Your task to perform on an android device: Clear the cart on target. Search for usb-b on target, select the first entry, add it to the cart, then select checkout. Image 0: 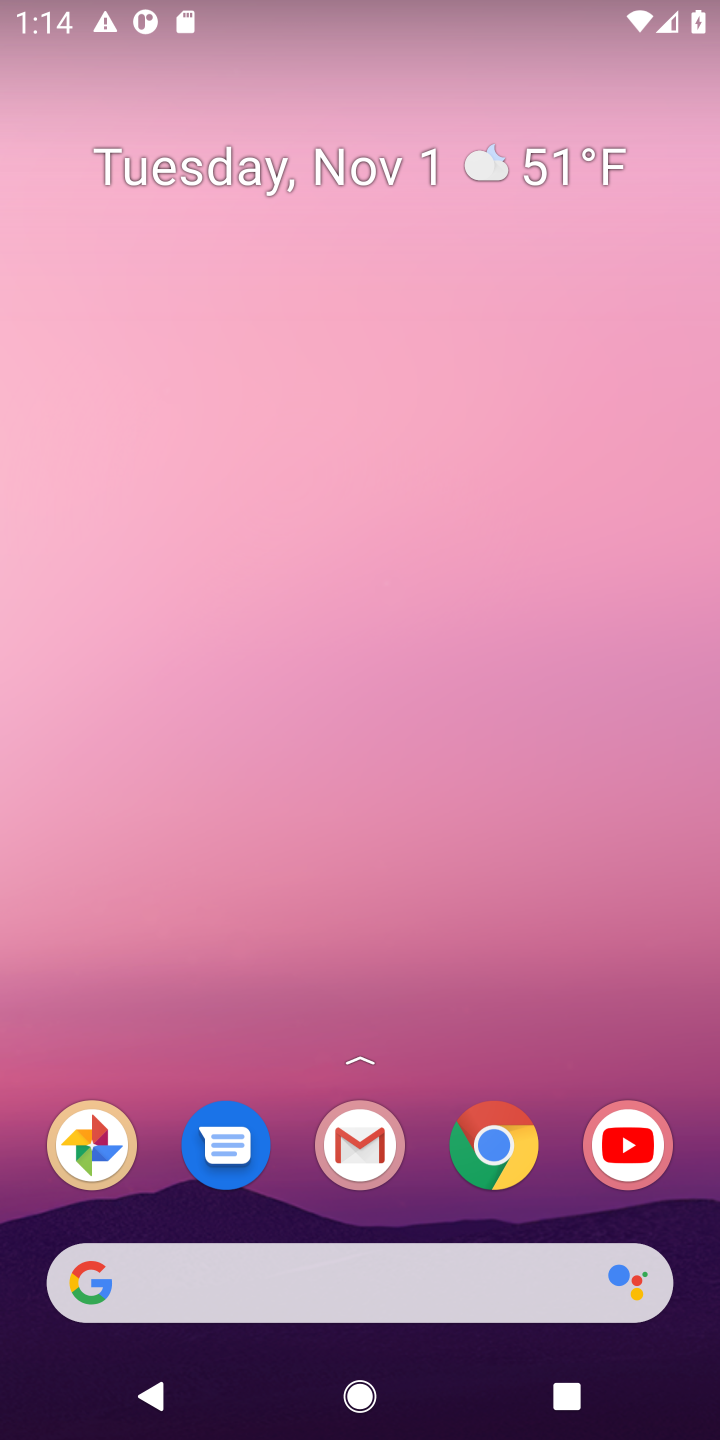
Step 0: press home button
Your task to perform on an android device: Clear the cart on target. Search for usb-b on target, select the first entry, add it to the cart, then select checkout. Image 1: 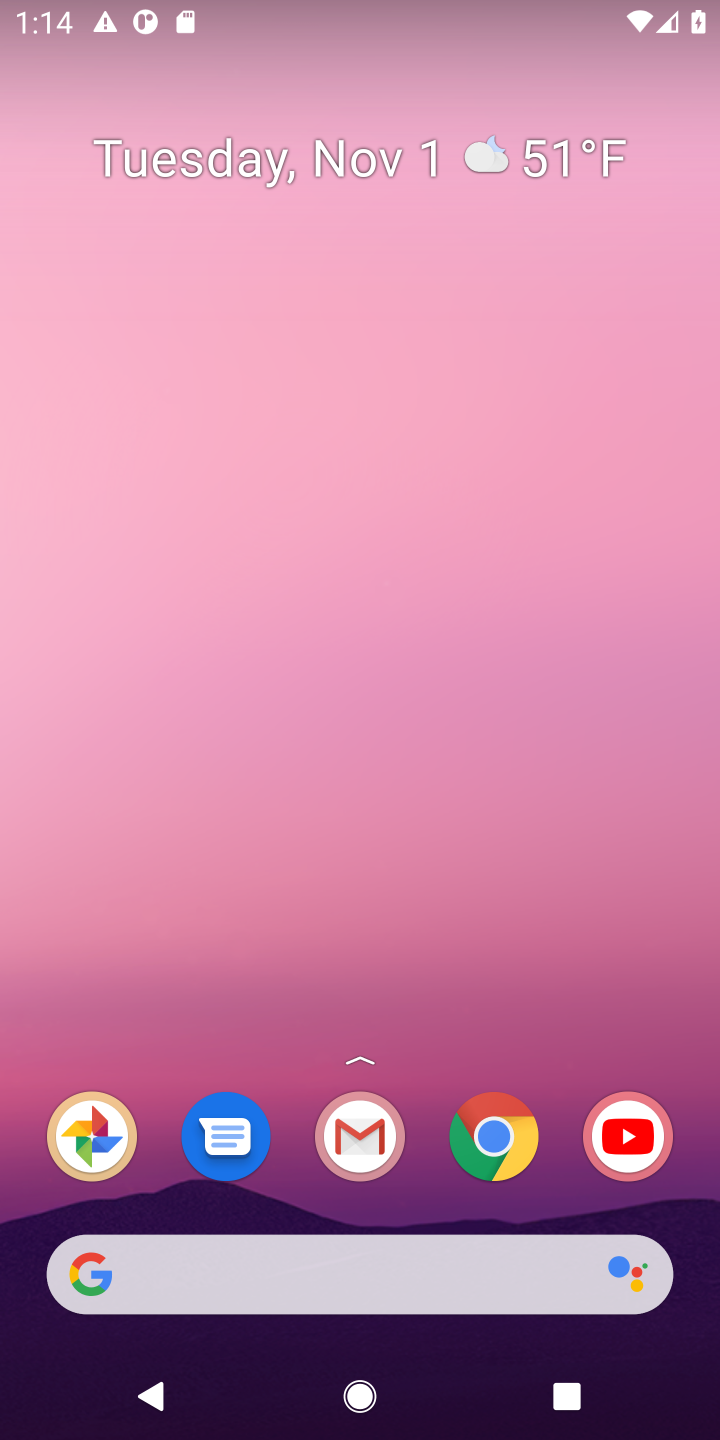
Step 1: click (131, 1276)
Your task to perform on an android device: Clear the cart on target. Search for usb-b on target, select the first entry, add it to the cart, then select checkout. Image 2: 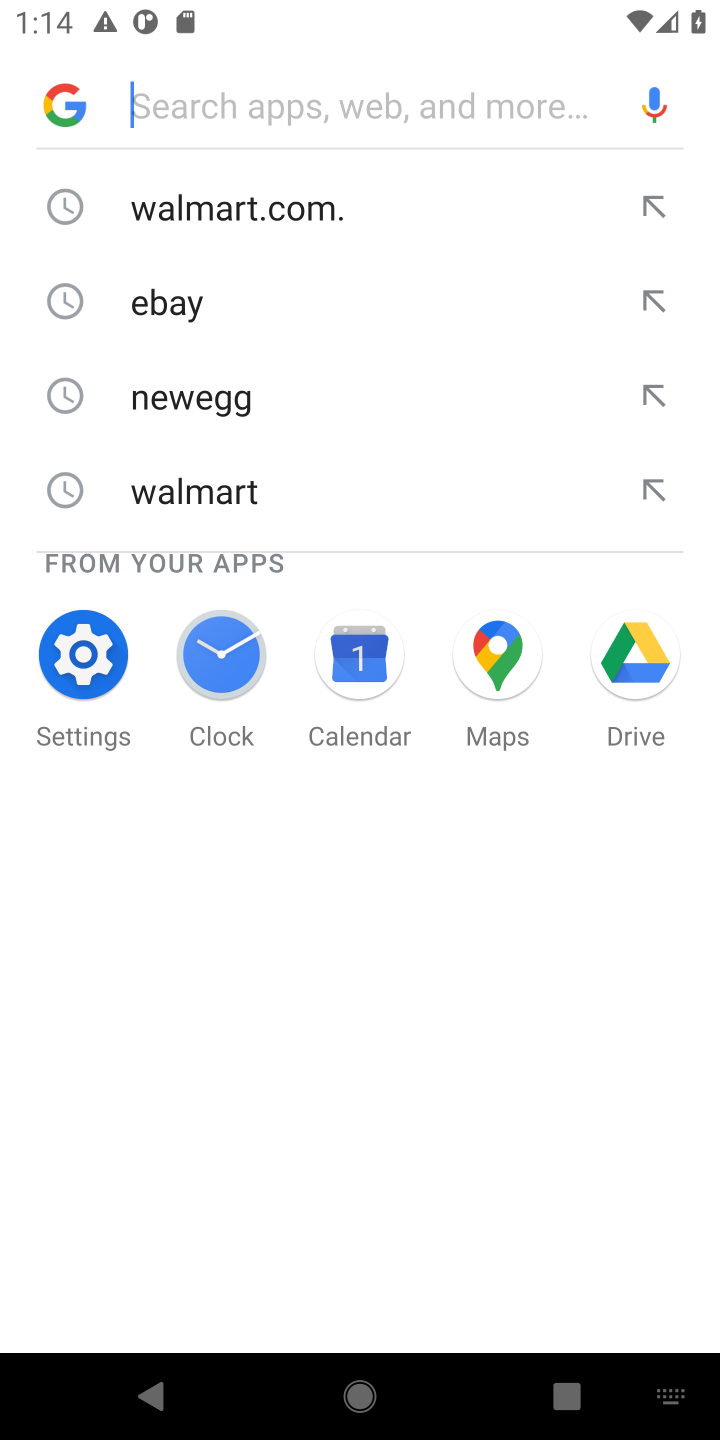
Step 2: type " target"
Your task to perform on an android device: Clear the cart on target. Search for usb-b on target, select the first entry, add it to the cart, then select checkout. Image 3: 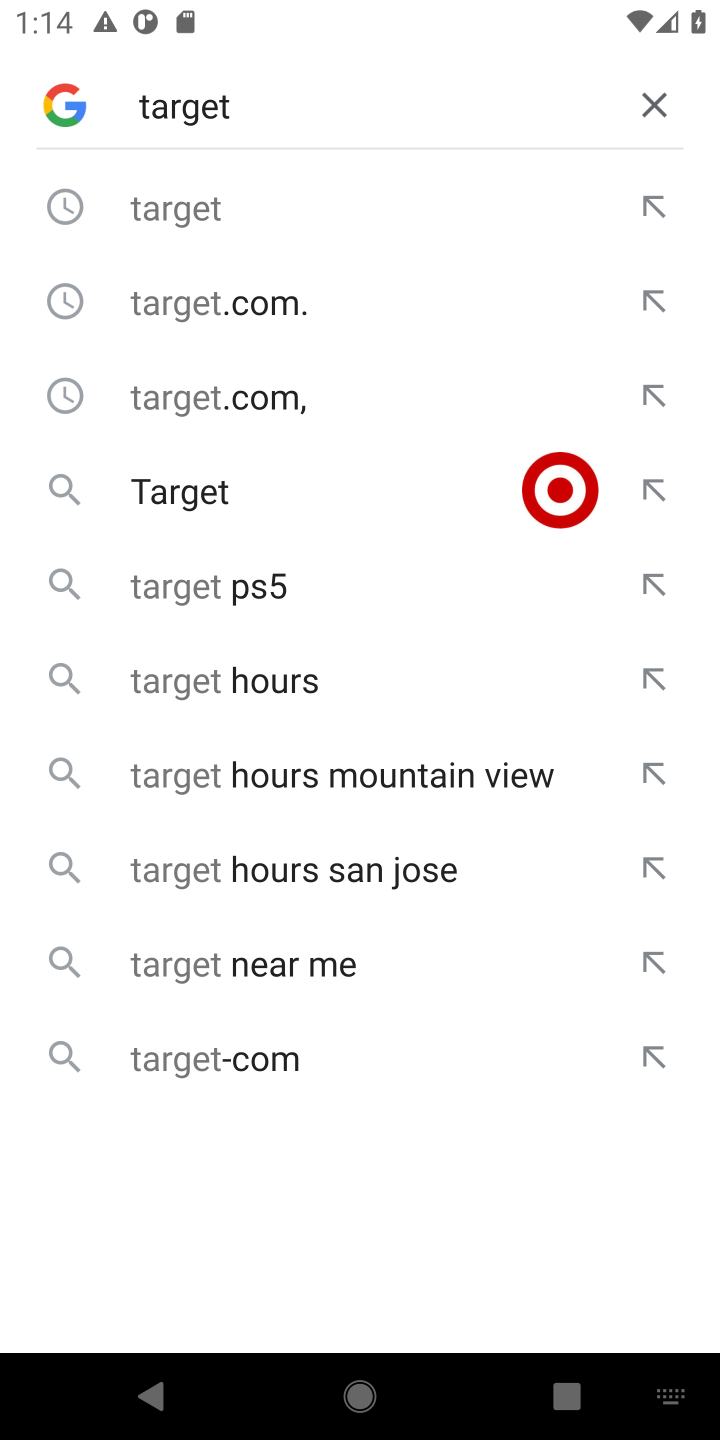
Step 3: press enter
Your task to perform on an android device: Clear the cart on target. Search for usb-b on target, select the first entry, add it to the cart, then select checkout. Image 4: 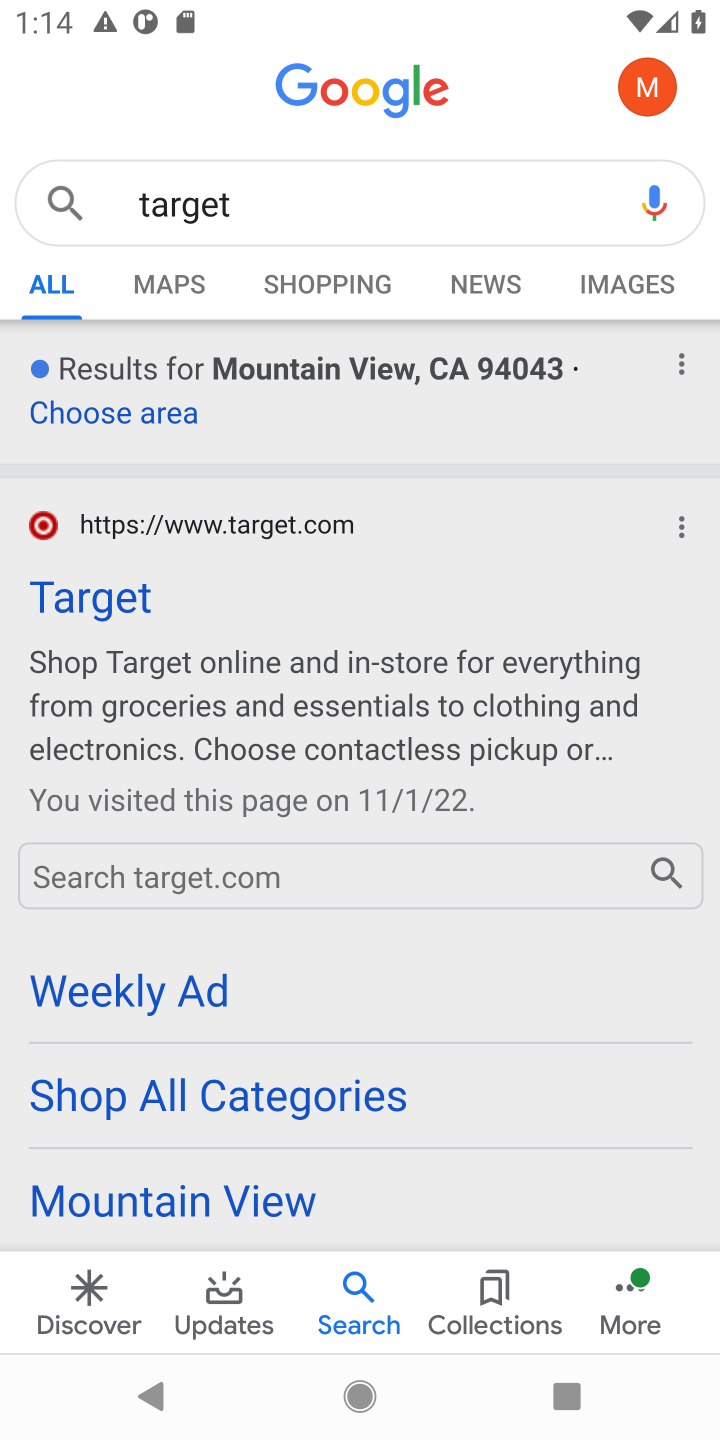
Step 4: click (90, 592)
Your task to perform on an android device: Clear the cart on target. Search for usb-b on target, select the first entry, add it to the cart, then select checkout. Image 5: 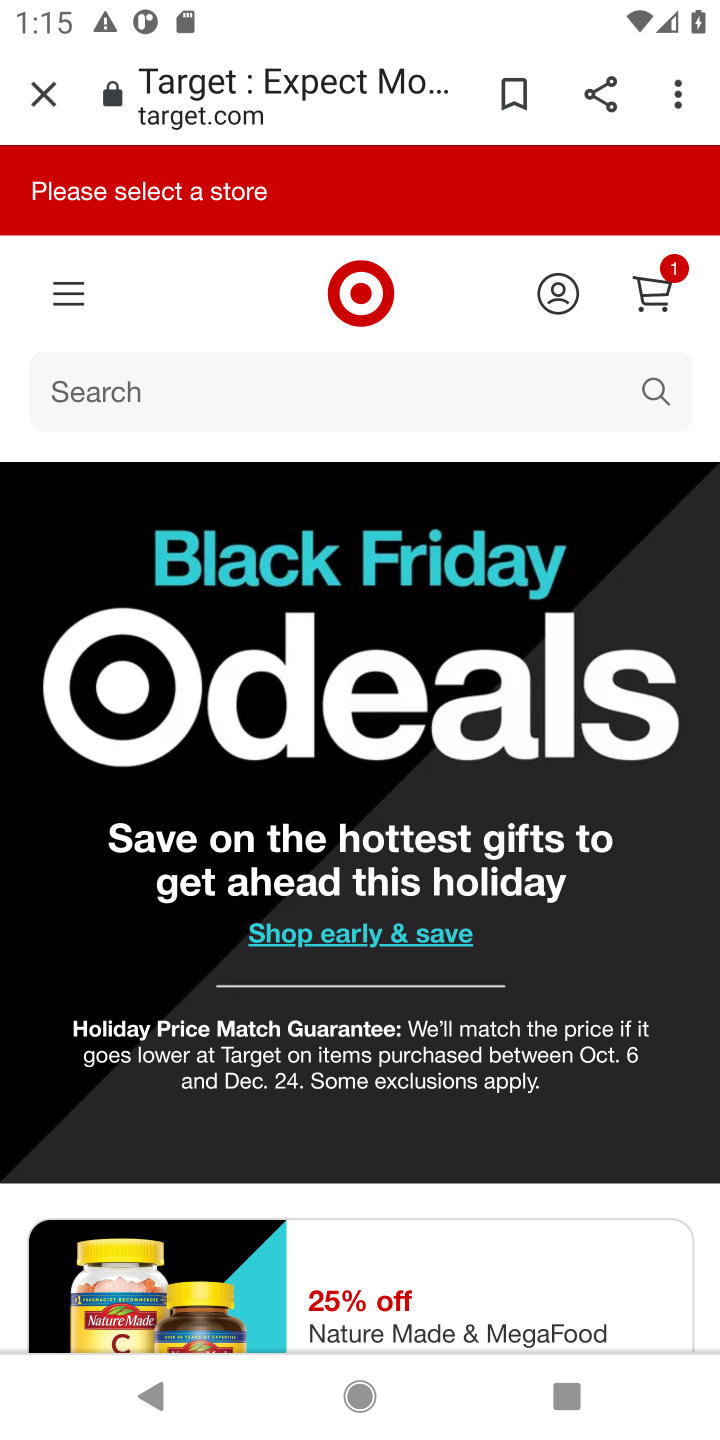
Step 5: click (177, 399)
Your task to perform on an android device: Clear the cart on target. Search for usb-b on target, select the first entry, add it to the cart, then select checkout. Image 6: 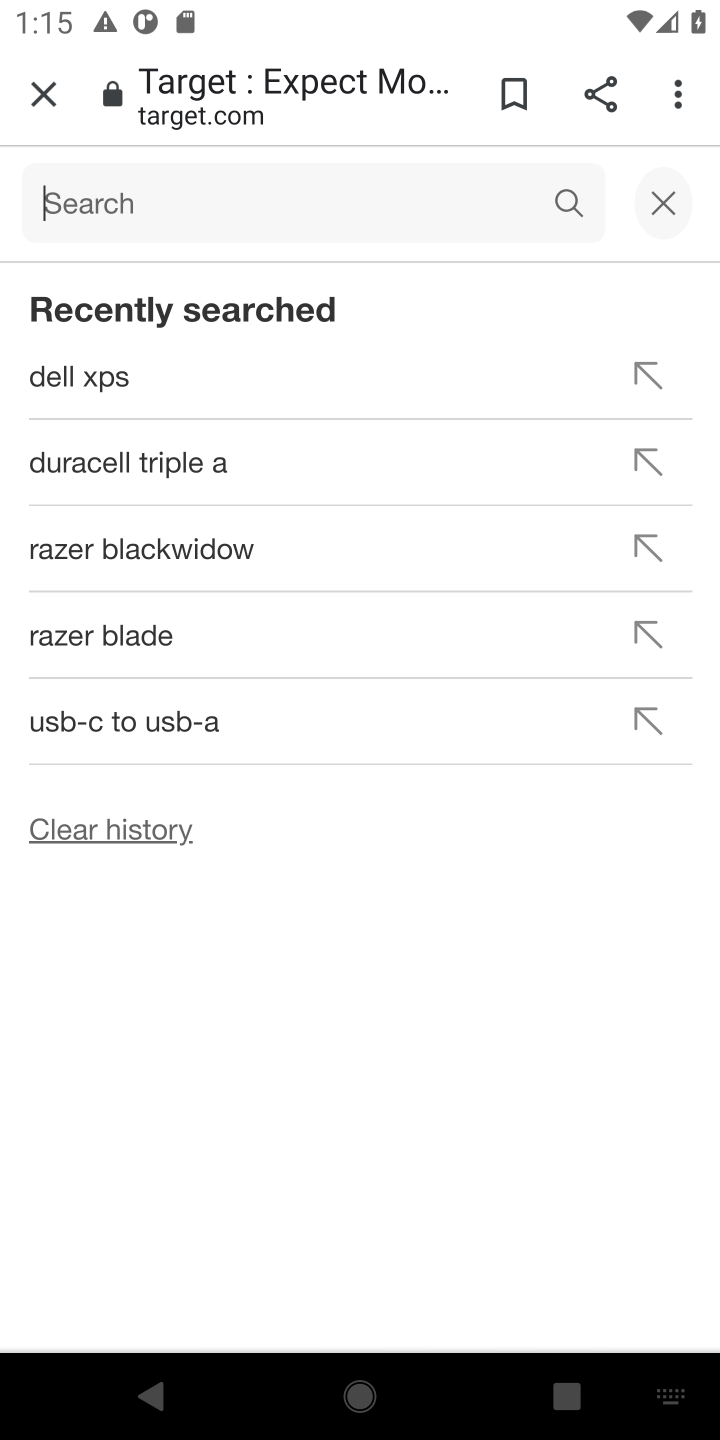
Step 6: click (657, 200)
Your task to perform on an android device: Clear the cart on target. Search for usb-b on target, select the first entry, add it to the cart, then select checkout. Image 7: 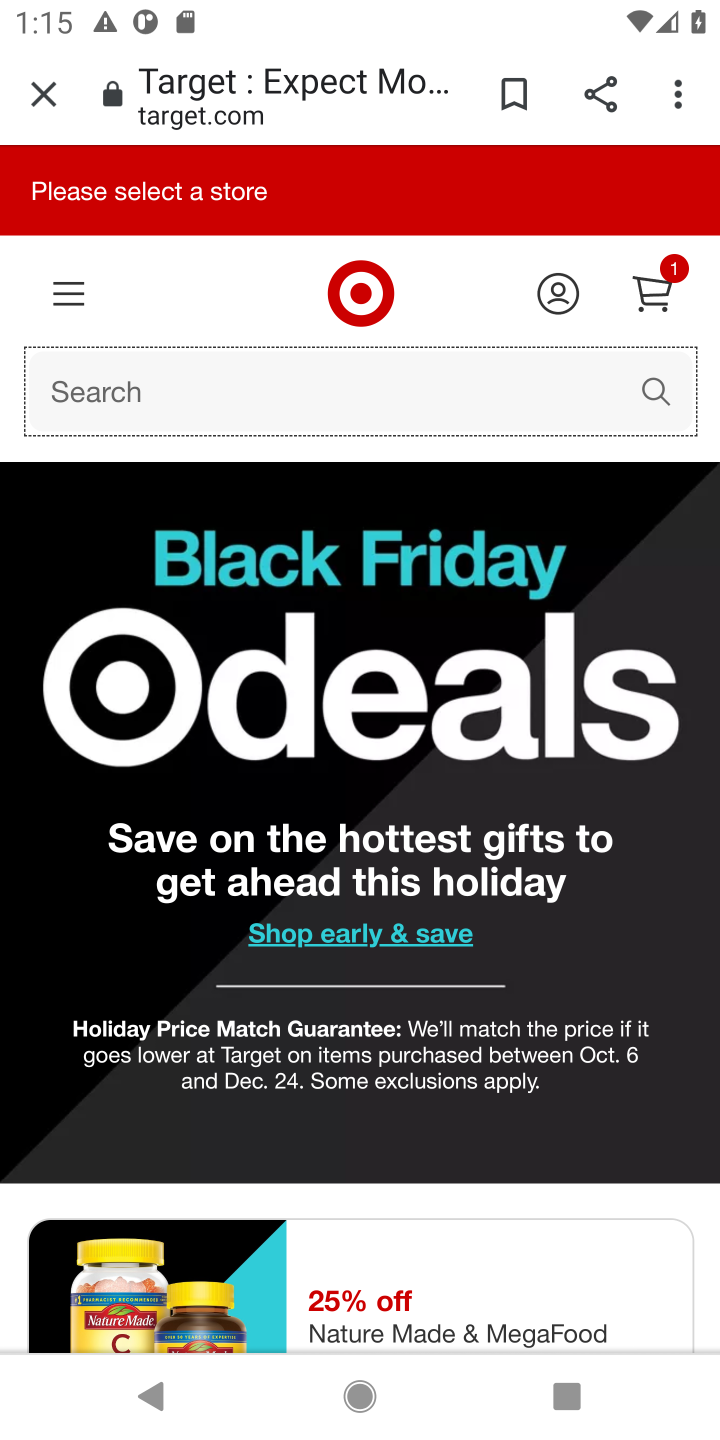
Step 7: click (656, 274)
Your task to perform on an android device: Clear the cart on target. Search for usb-b on target, select the first entry, add it to the cart, then select checkout. Image 8: 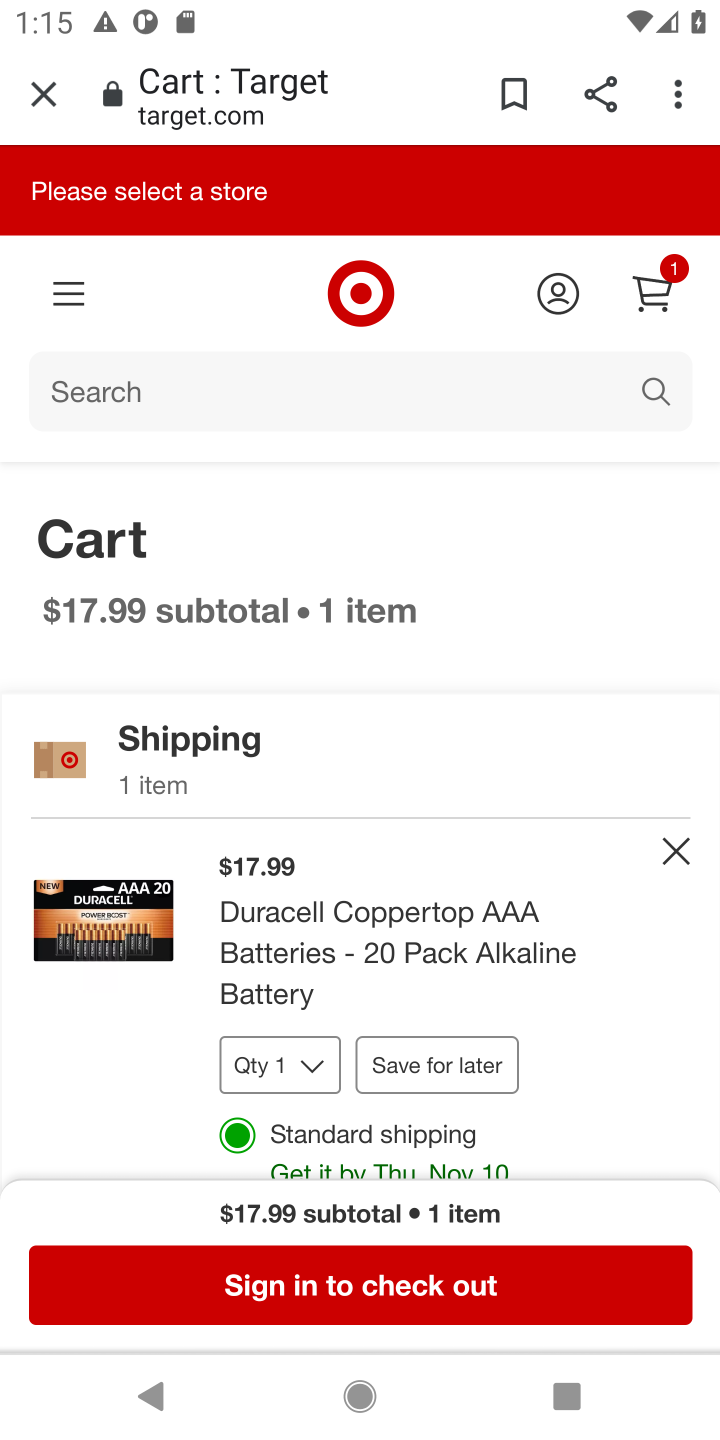
Step 8: click (671, 847)
Your task to perform on an android device: Clear the cart on target. Search for usb-b on target, select the first entry, add it to the cart, then select checkout. Image 9: 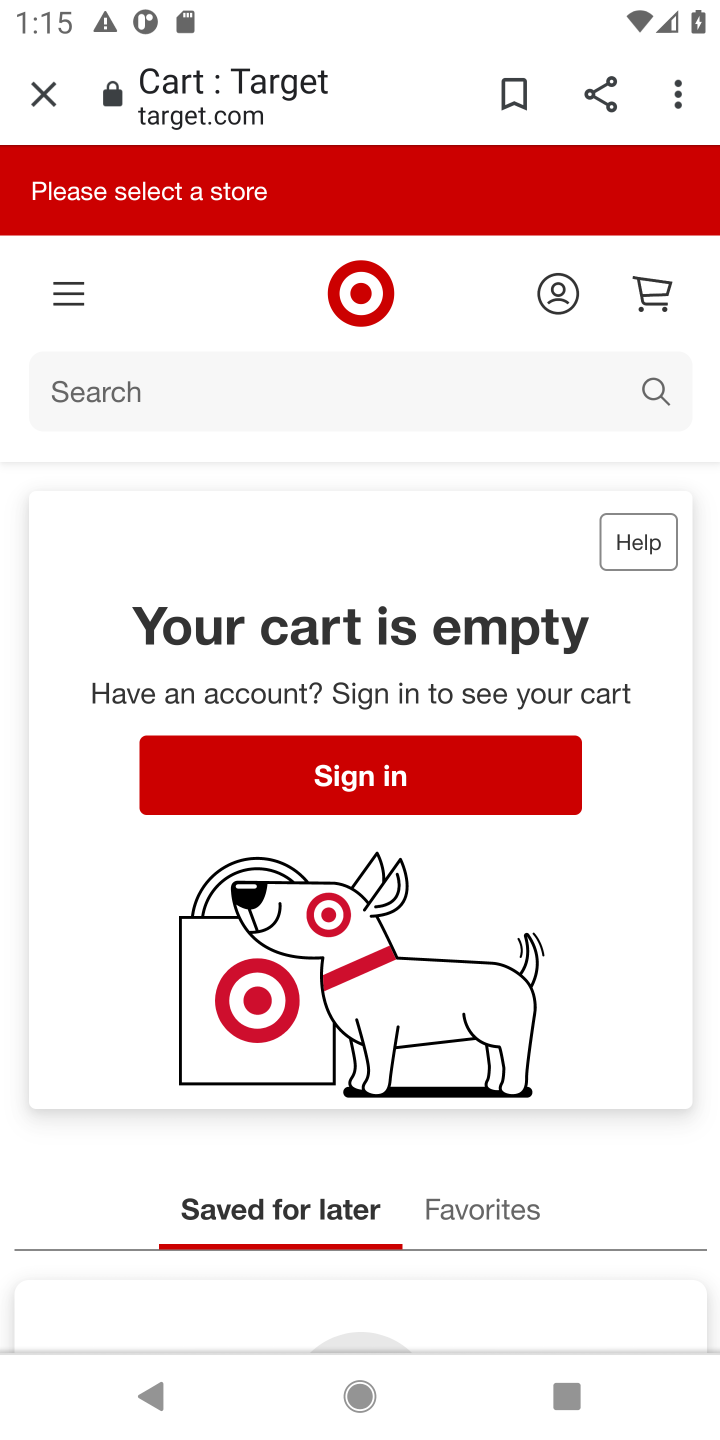
Step 9: click (146, 387)
Your task to perform on an android device: Clear the cart on target. Search for usb-b on target, select the first entry, add it to the cart, then select checkout. Image 10: 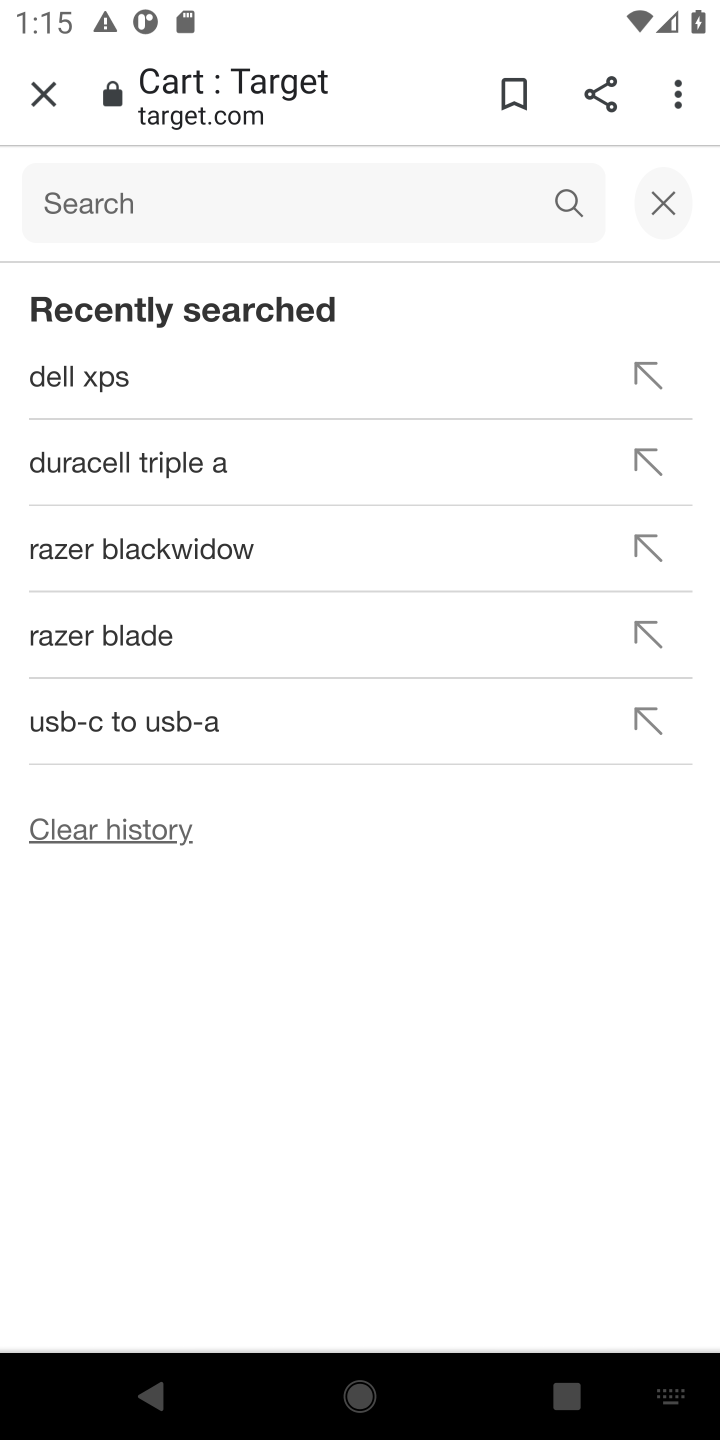
Step 10: type " usb-b "
Your task to perform on an android device: Clear the cart on target. Search for usb-b on target, select the first entry, add it to the cart, then select checkout. Image 11: 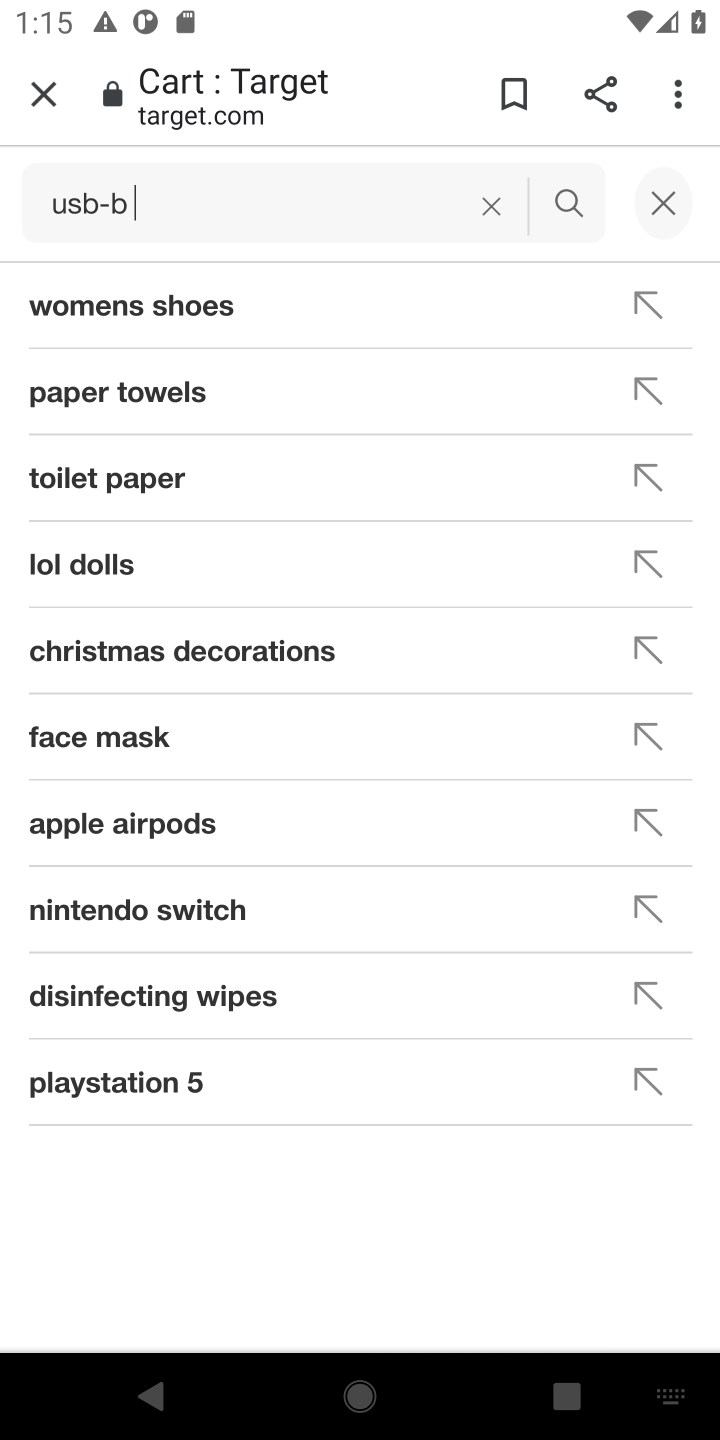
Step 11: press enter
Your task to perform on an android device: Clear the cart on target. Search for usb-b on target, select the first entry, add it to the cart, then select checkout. Image 12: 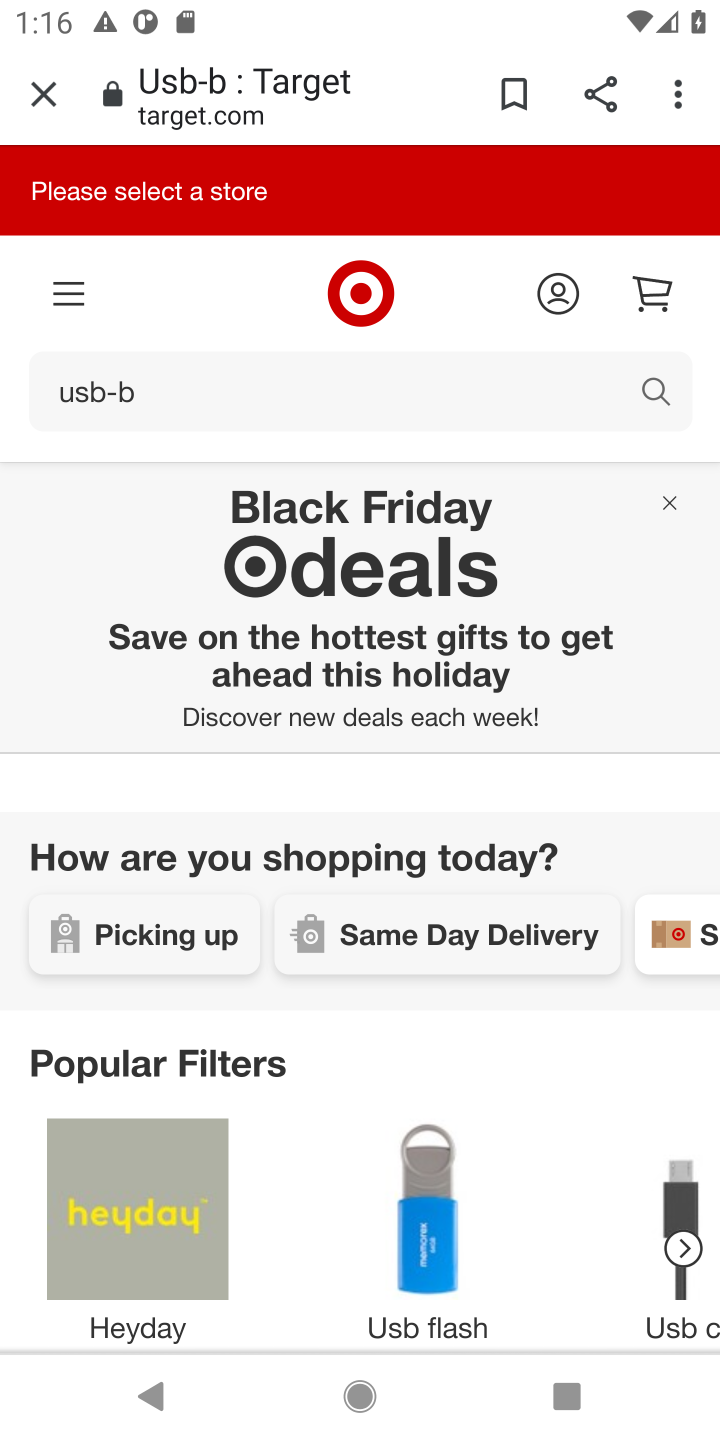
Step 12: task complete